Your task to perform on an android device: Search for vegetarian restaurants on Maps Image 0: 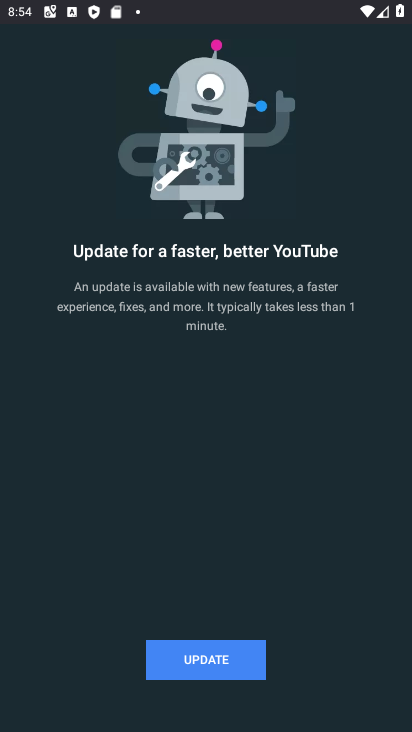
Step 0: press back button
Your task to perform on an android device: Search for vegetarian restaurants on Maps Image 1: 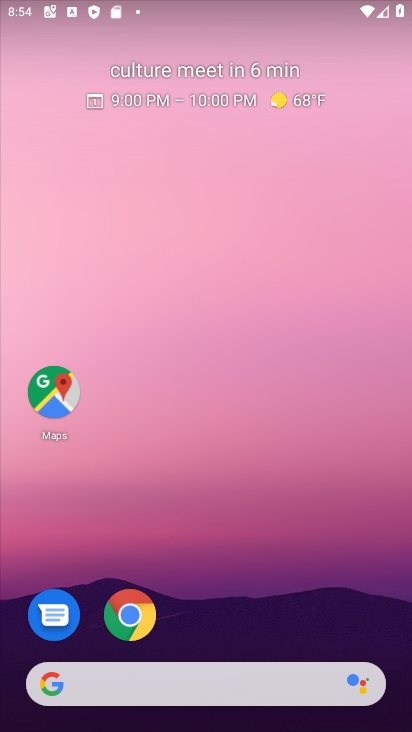
Step 1: click (42, 387)
Your task to perform on an android device: Search for vegetarian restaurants on Maps Image 2: 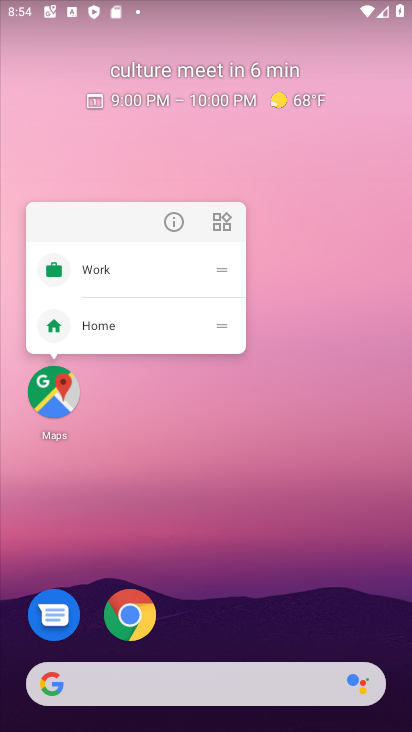
Step 2: click (41, 385)
Your task to perform on an android device: Search for vegetarian restaurants on Maps Image 3: 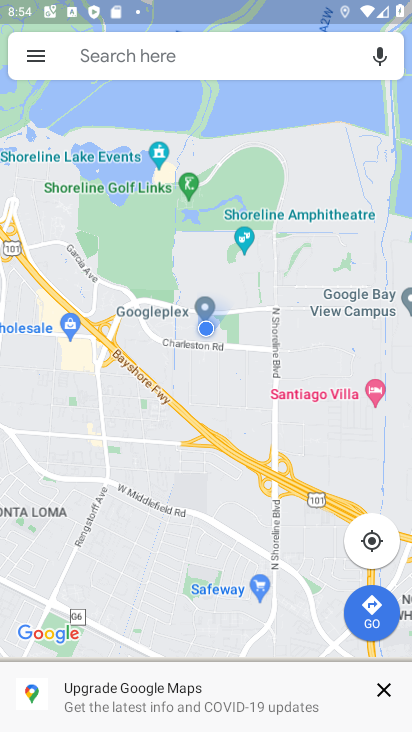
Step 3: click (137, 47)
Your task to perform on an android device: Search for vegetarian restaurants on Maps Image 4: 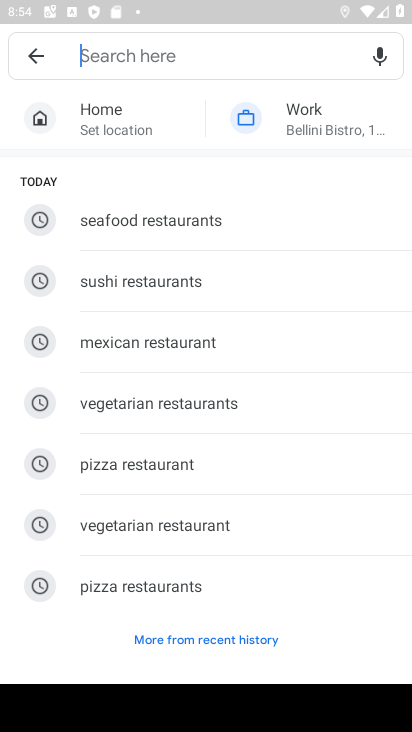
Step 4: type "vegetarian restaurants "
Your task to perform on an android device: Search for vegetarian restaurants on Maps Image 5: 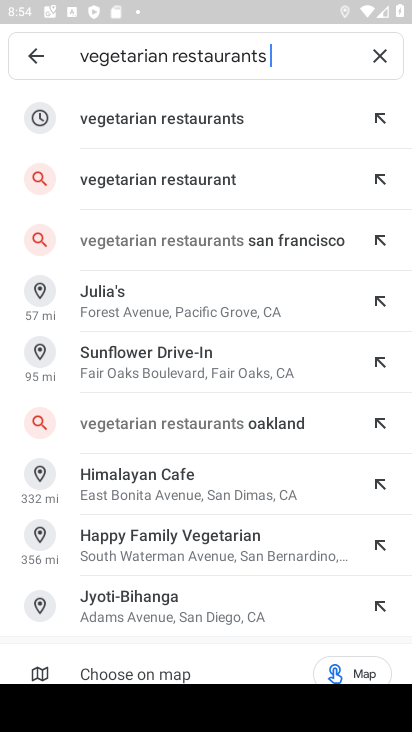
Step 5: click (119, 177)
Your task to perform on an android device: Search for vegetarian restaurants on Maps Image 6: 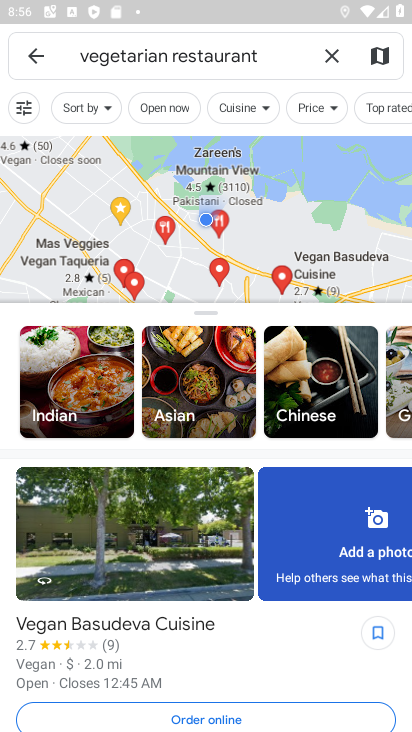
Step 6: task complete